Your task to perform on an android device: find photos in the google photos app Image 0: 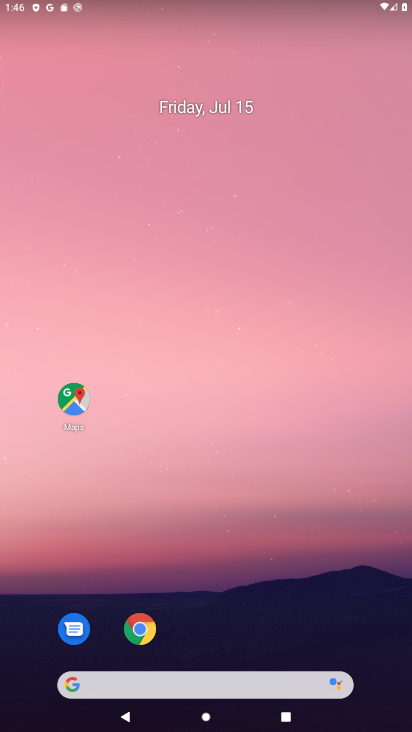
Step 0: drag from (194, 612) to (194, 165)
Your task to perform on an android device: find photos in the google photos app Image 1: 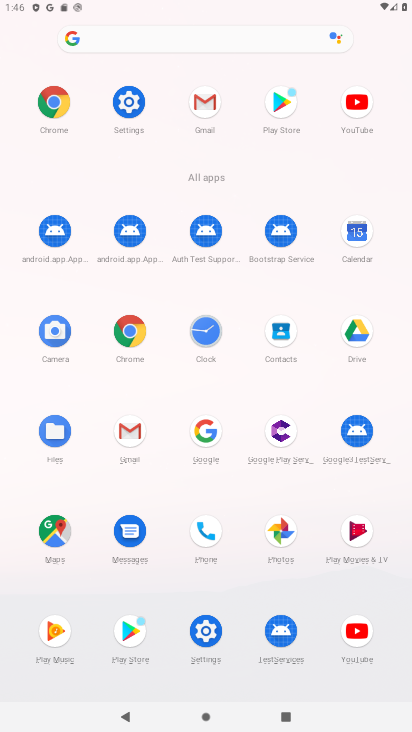
Step 1: click (283, 544)
Your task to perform on an android device: find photos in the google photos app Image 2: 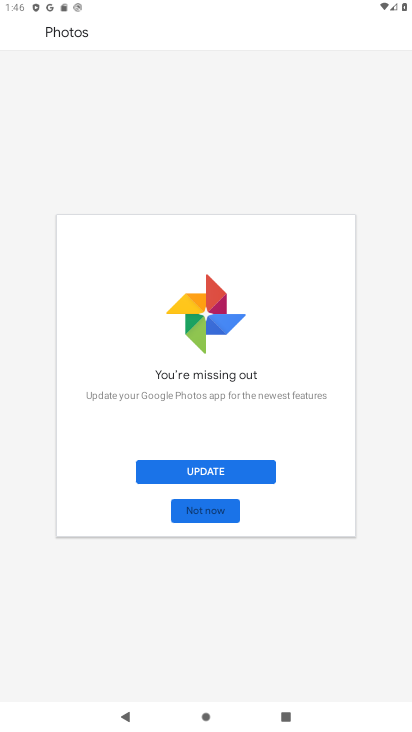
Step 2: click (201, 465)
Your task to perform on an android device: find photos in the google photos app Image 3: 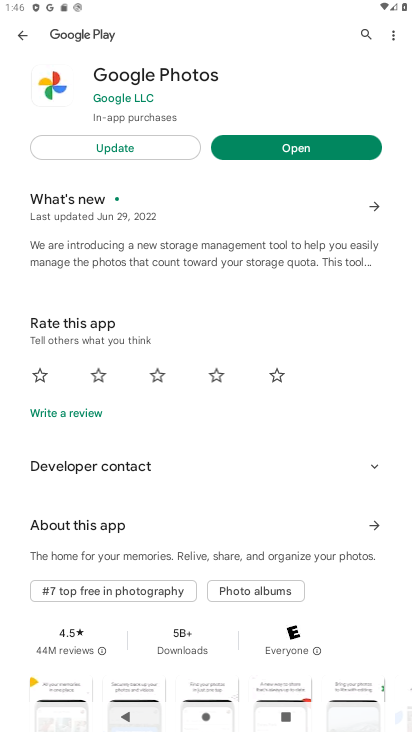
Step 3: click (357, 143)
Your task to perform on an android device: find photos in the google photos app Image 4: 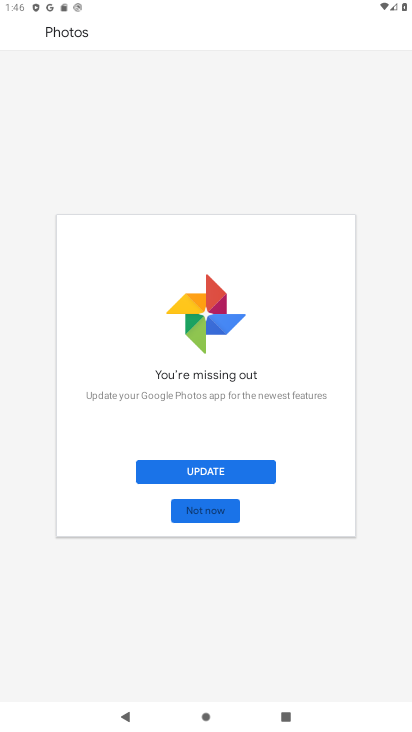
Step 4: click (201, 462)
Your task to perform on an android device: find photos in the google photos app Image 5: 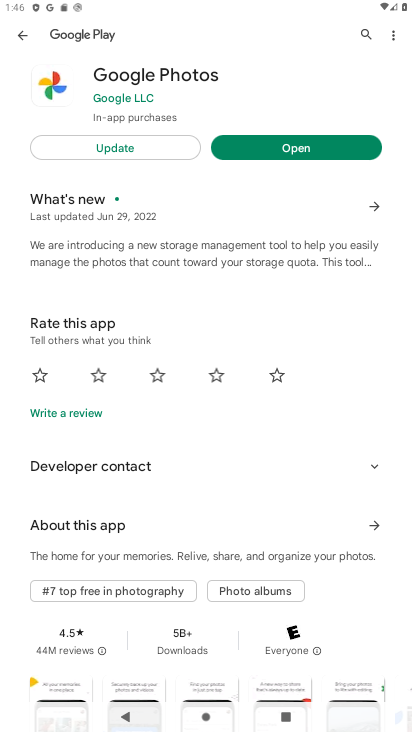
Step 5: click (110, 150)
Your task to perform on an android device: find photos in the google photos app Image 6: 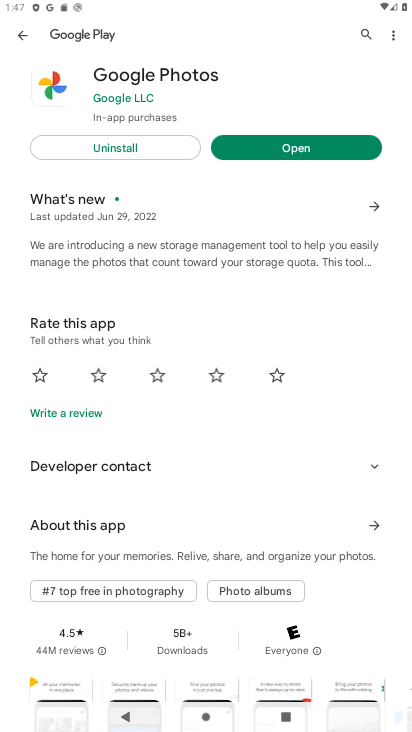
Step 6: click (279, 147)
Your task to perform on an android device: find photos in the google photos app Image 7: 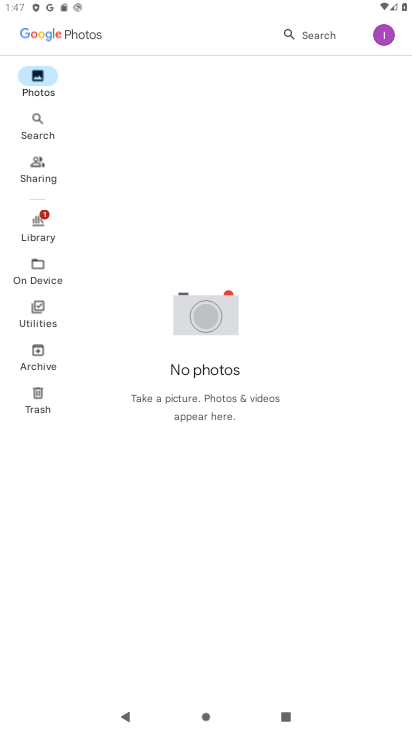
Step 7: task complete